Your task to perform on an android device: Is it going to rain this weekend? Image 0: 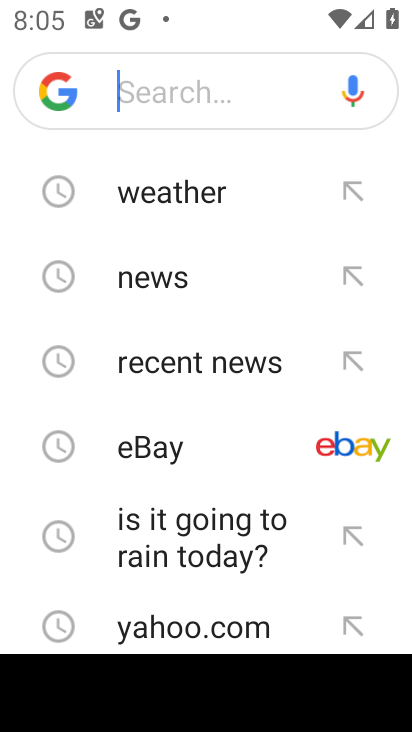
Step 0: press home button
Your task to perform on an android device: Is it going to rain this weekend? Image 1: 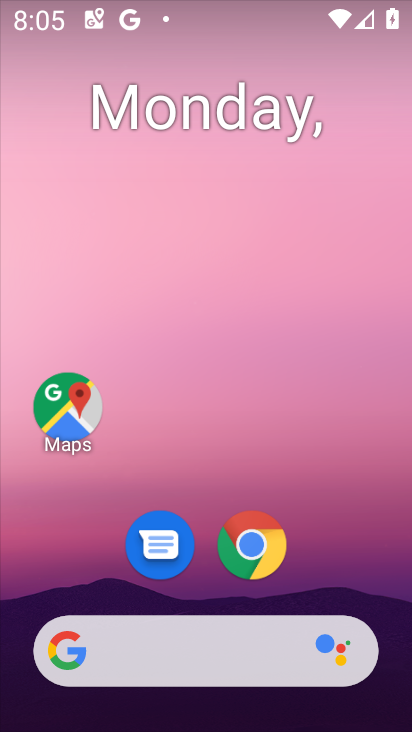
Step 1: click (63, 651)
Your task to perform on an android device: Is it going to rain this weekend? Image 2: 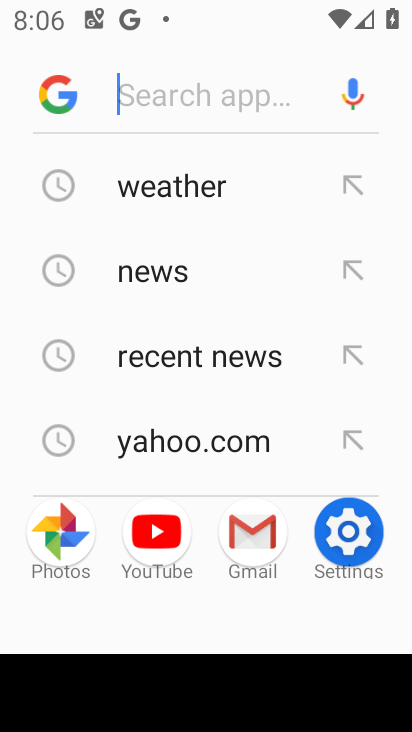
Step 2: click (197, 187)
Your task to perform on an android device: Is it going to rain this weekend? Image 3: 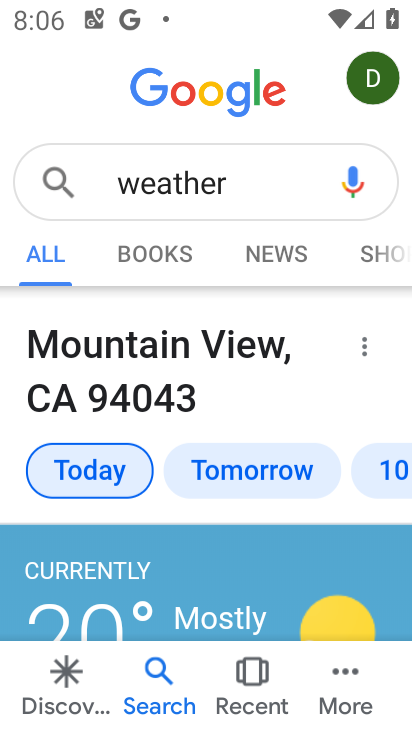
Step 3: click (394, 462)
Your task to perform on an android device: Is it going to rain this weekend? Image 4: 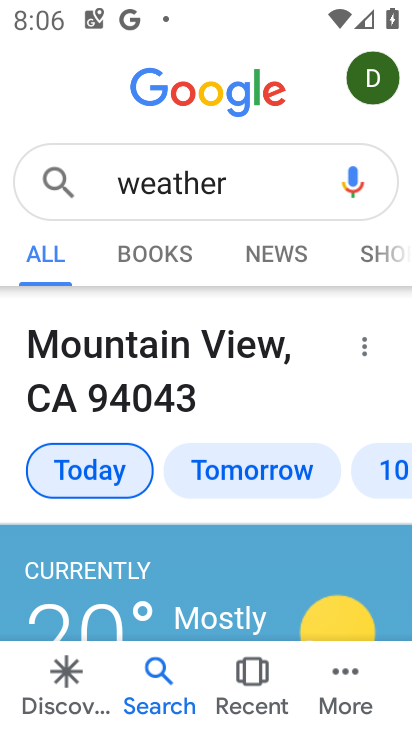
Step 4: click (394, 462)
Your task to perform on an android device: Is it going to rain this weekend? Image 5: 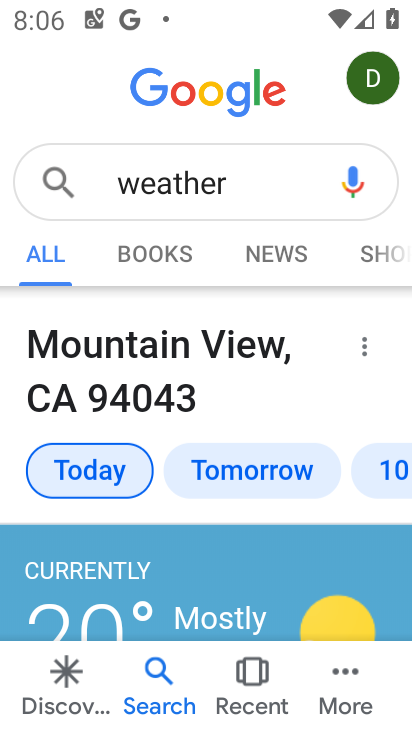
Step 5: drag from (336, 482) to (52, 405)
Your task to perform on an android device: Is it going to rain this weekend? Image 6: 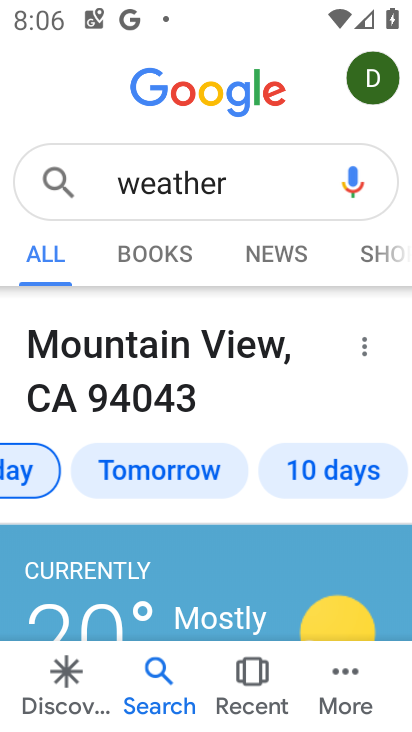
Step 6: drag from (184, 623) to (202, 161)
Your task to perform on an android device: Is it going to rain this weekend? Image 7: 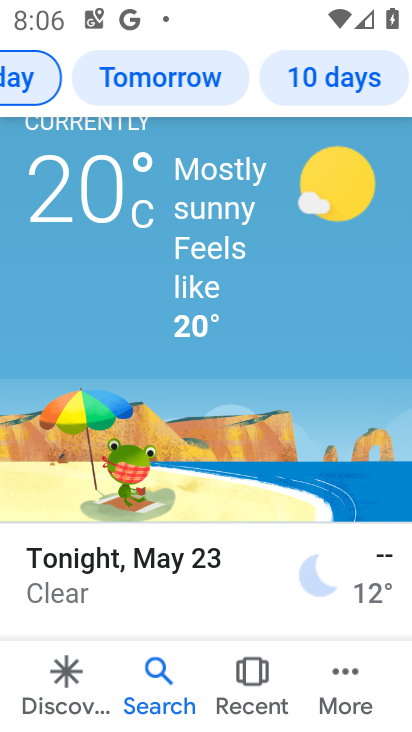
Step 7: click (345, 80)
Your task to perform on an android device: Is it going to rain this weekend? Image 8: 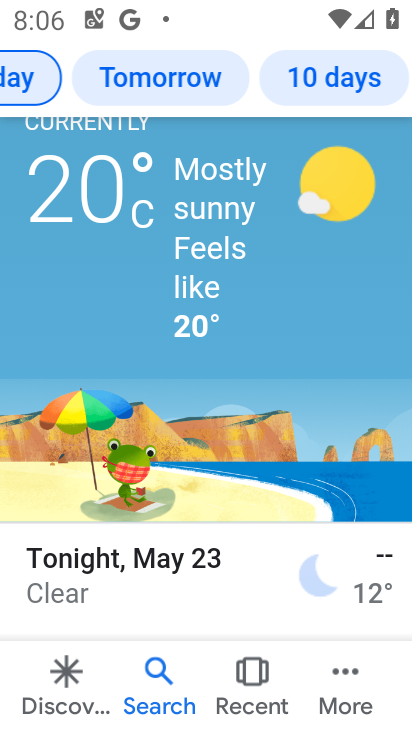
Step 8: click (345, 80)
Your task to perform on an android device: Is it going to rain this weekend? Image 9: 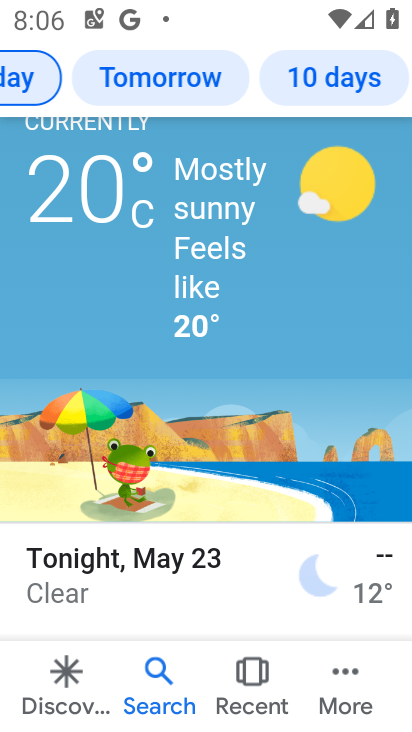
Step 9: click (345, 80)
Your task to perform on an android device: Is it going to rain this weekend? Image 10: 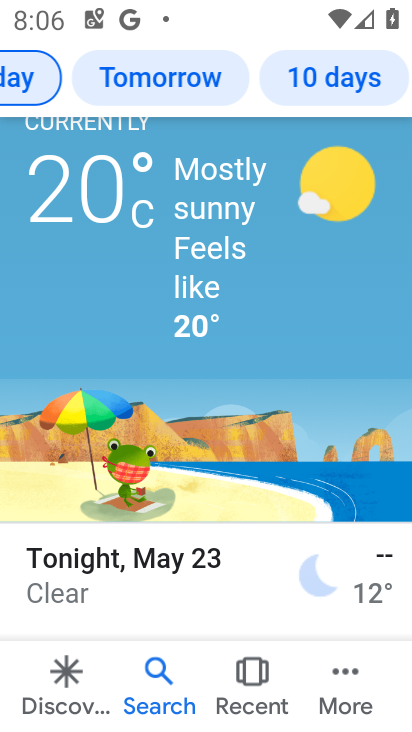
Step 10: click (345, 79)
Your task to perform on an android device: Is it going to rain this weekend? Image 11: 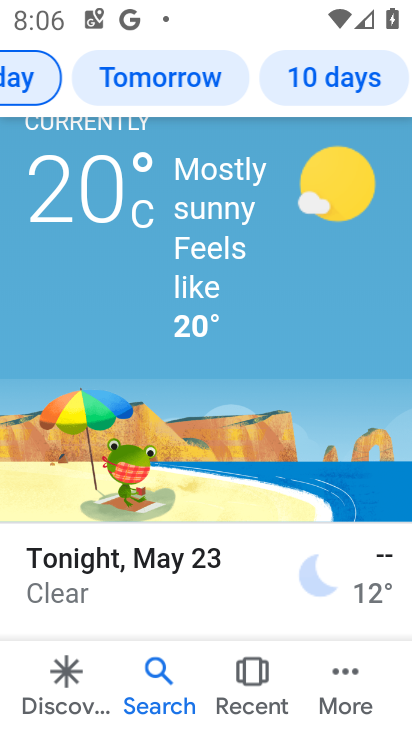
Step 11: task complete